Your task to perform on an android device: Open settings Image 0: 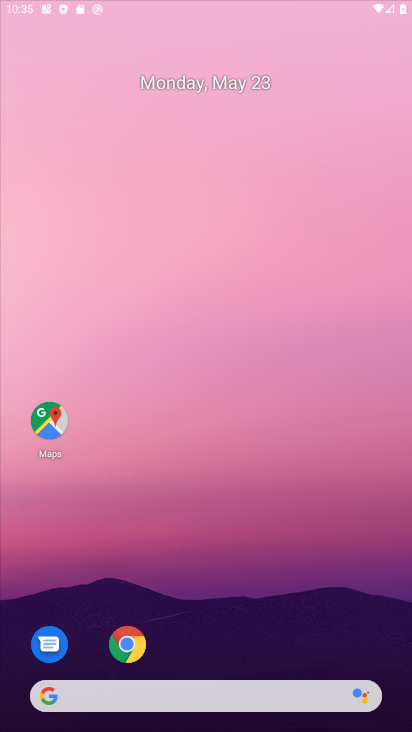
Step 0: drag from (274, 641) to (181, 126)
Your task to perform on an android device: Open settings Image 1: 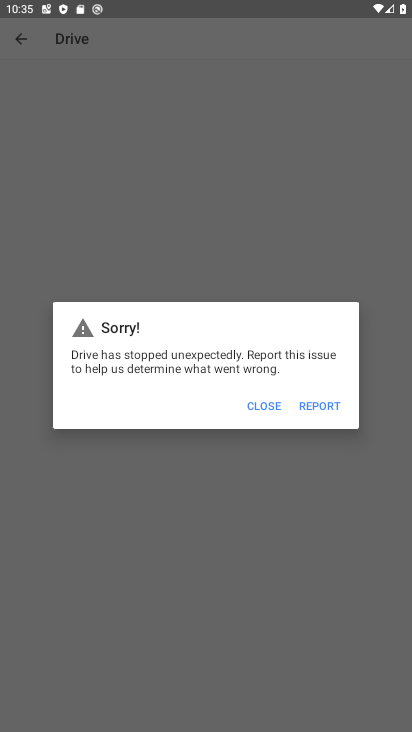
Step 1: click (266, 398)
Your task to perform on an android device: Open settings Image 2: 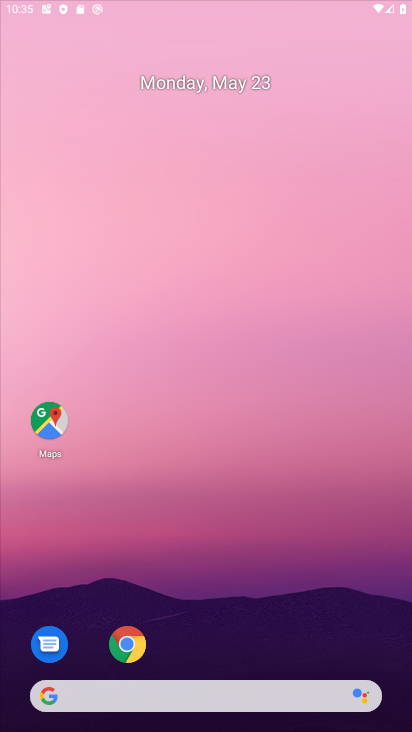
Step 2: drag from (216, 652) to (167, 190)
Your task to perform on an android device: Open settings Image 3: 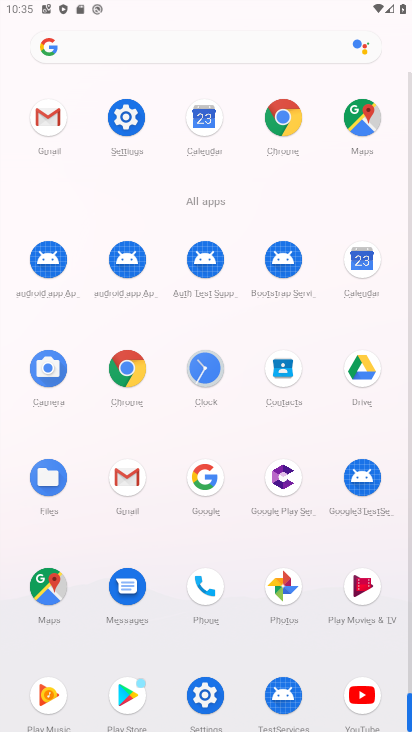
Step 3: click (130, 117)
Your task to perform on an android device: Open settings Image 4: 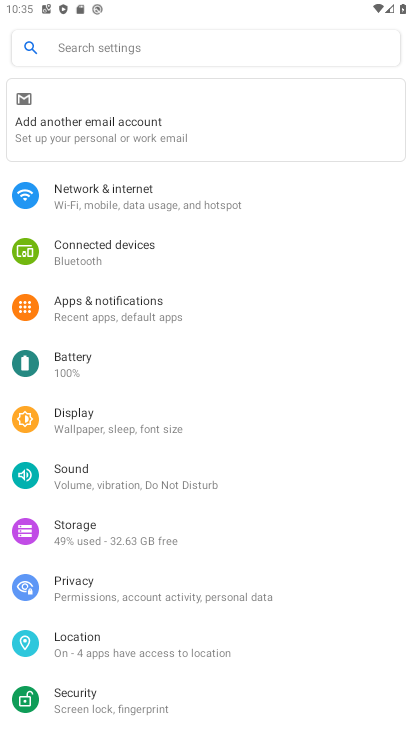
Step 4: click (388, 574)
Your task to perform on an android device: Open settings Image 5: 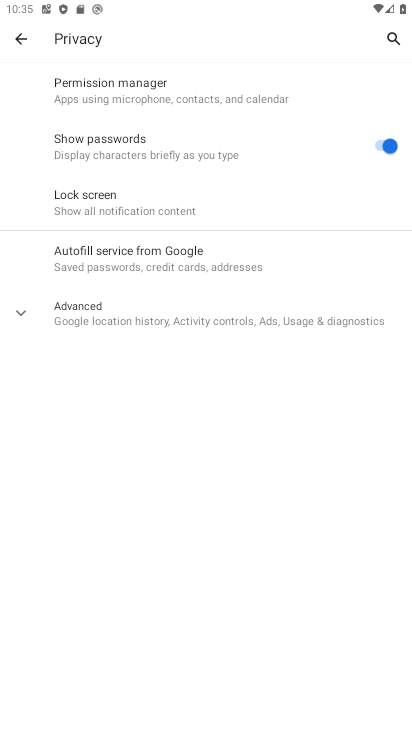
Step 5: press back button
Your task to perform on an android device: Open settings Image 6: 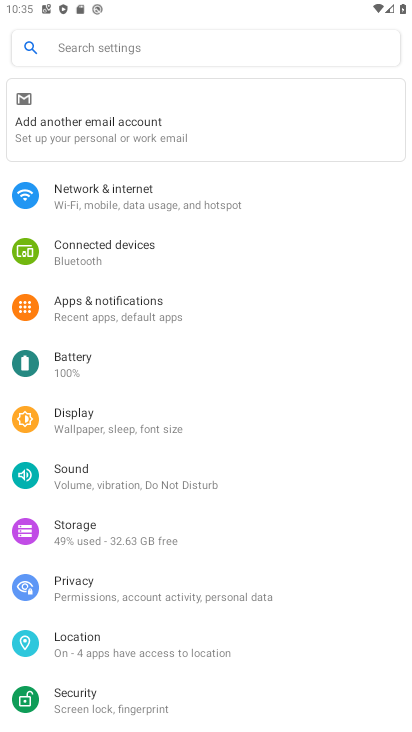
Step 6: press home button
Your task to perform on an android device: Open settings Image 7: 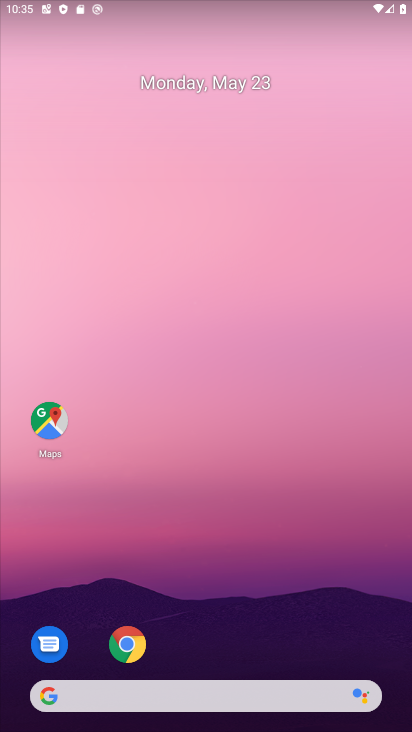
Step 7: drag from (251, 691) to (234, 28)
Your task to perform on an android device: Open settings Image 8: 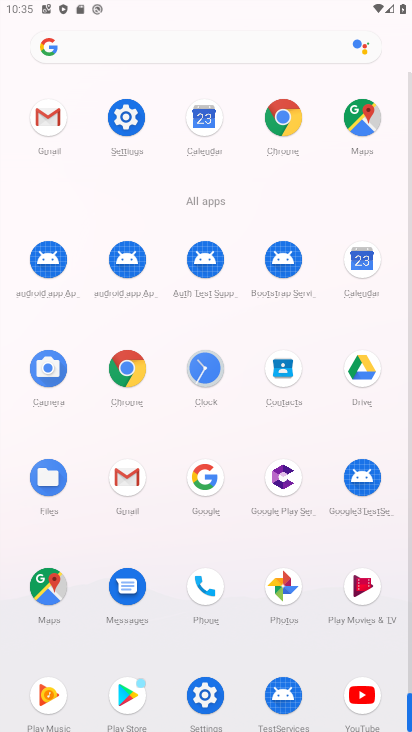
Step 8: click (124, 125)
Your task to perform on an android device: Open settings Image 9: 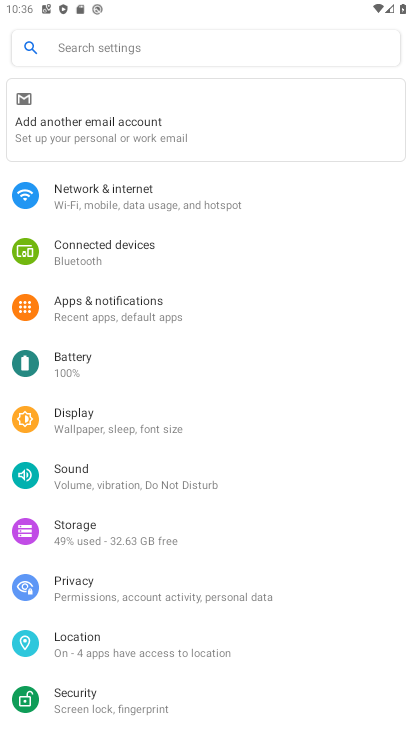
Step 9: task complete